Your task to perform on an android device: delete a single message in the gmail app Image 0: 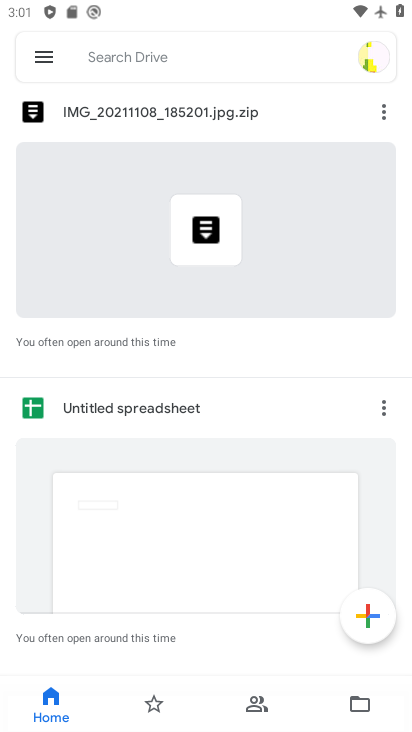
Step 0: press home button
Your task to perform on an android device: delete a single message in the gmail app Image 1: 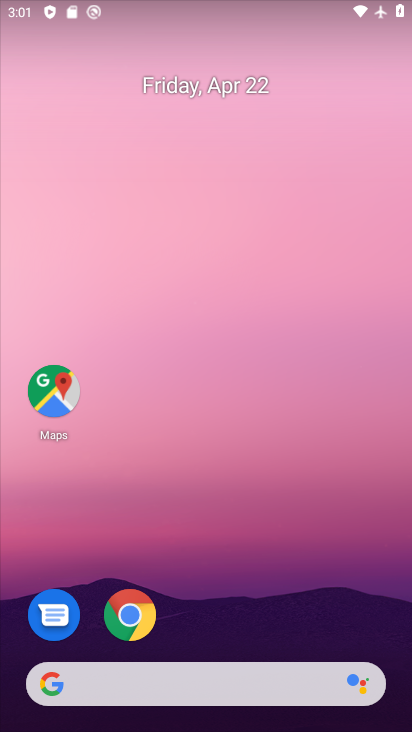
Step 1: drag from (295, 567) to (269, 239)
Your task to perform on an android device: delete a single message in the gmail app Image 2: 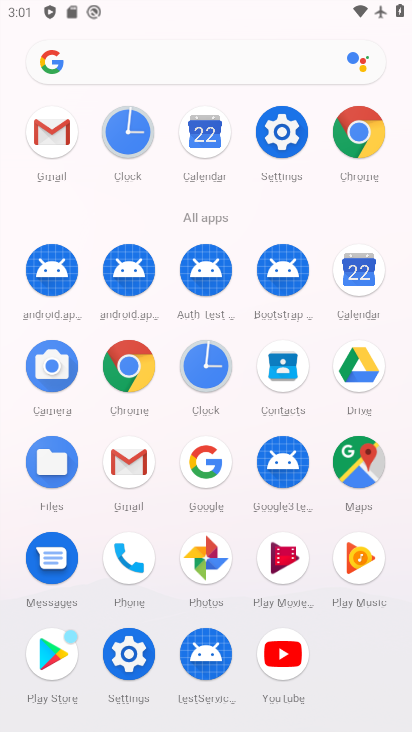
Step 2: click (134, 447)
Your task to perform on an android device: delete a single message in the gmail app Image 3: 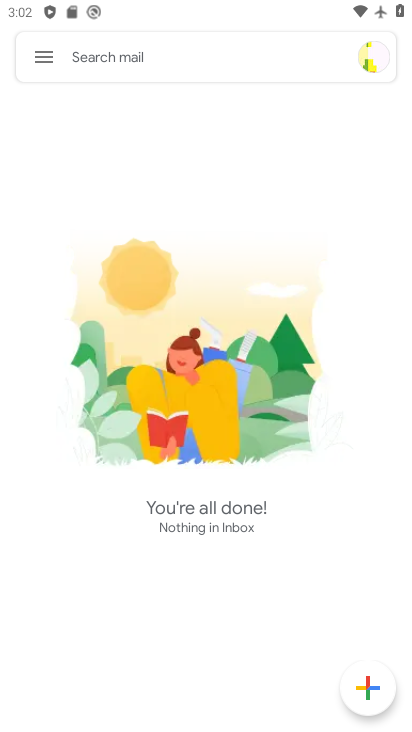
Step 3: click (51, 66)
Your task to perform on an android device: delete a single message in the gmail app Image 4: 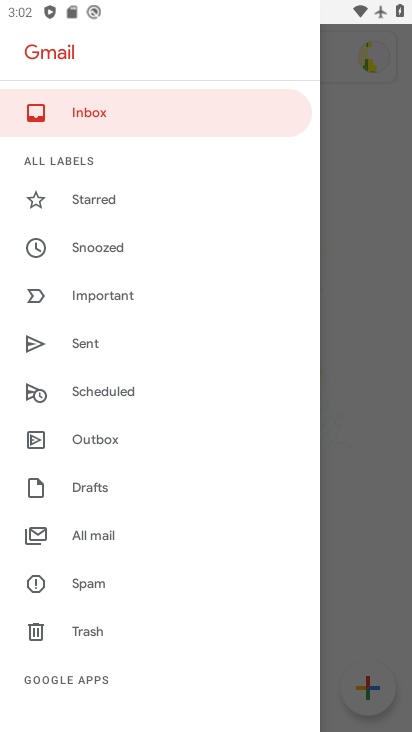
Step 4: click (144, 532)
Your task to perform on an android device: delete a single message in the gmail app Image 5: 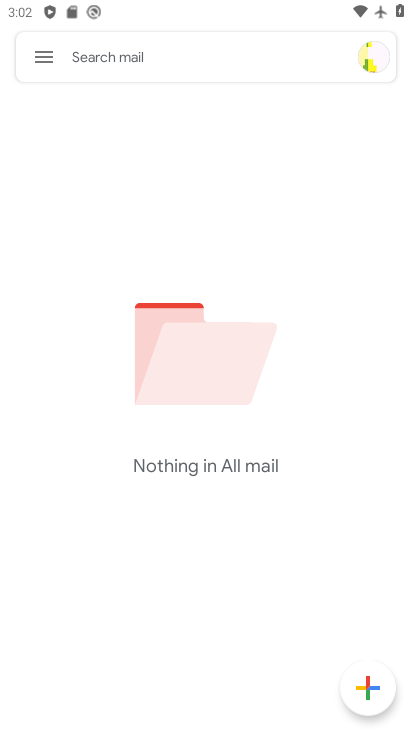
Step 5: task complete